Your task to perform on an android device: toggle notifications settings in the gmail app Image 0: 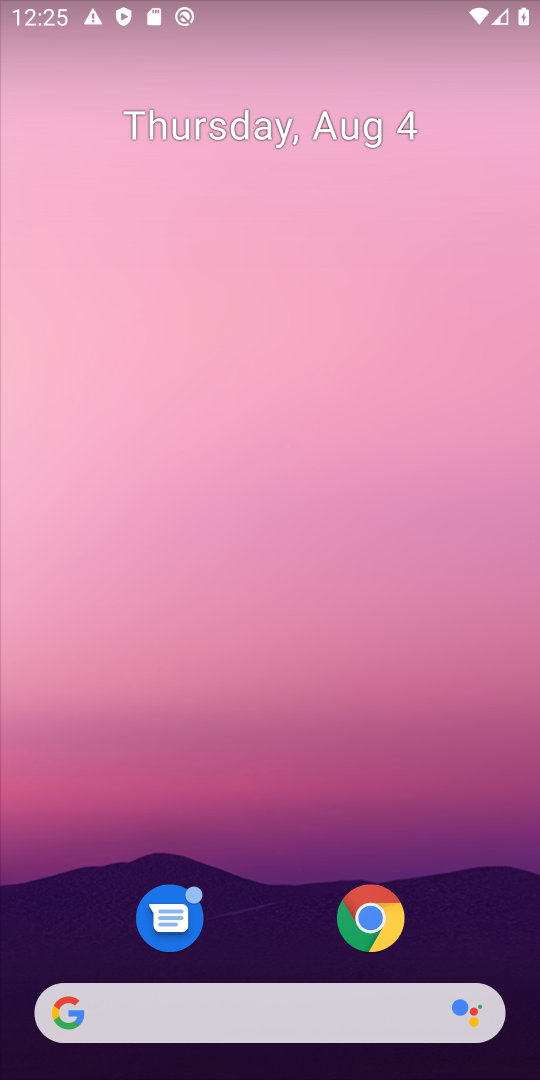
Step 0: drag from (287, 937) to (285, 363)
Your task to perform on an android device: toggle notifications settings in the gmail app Image 1: 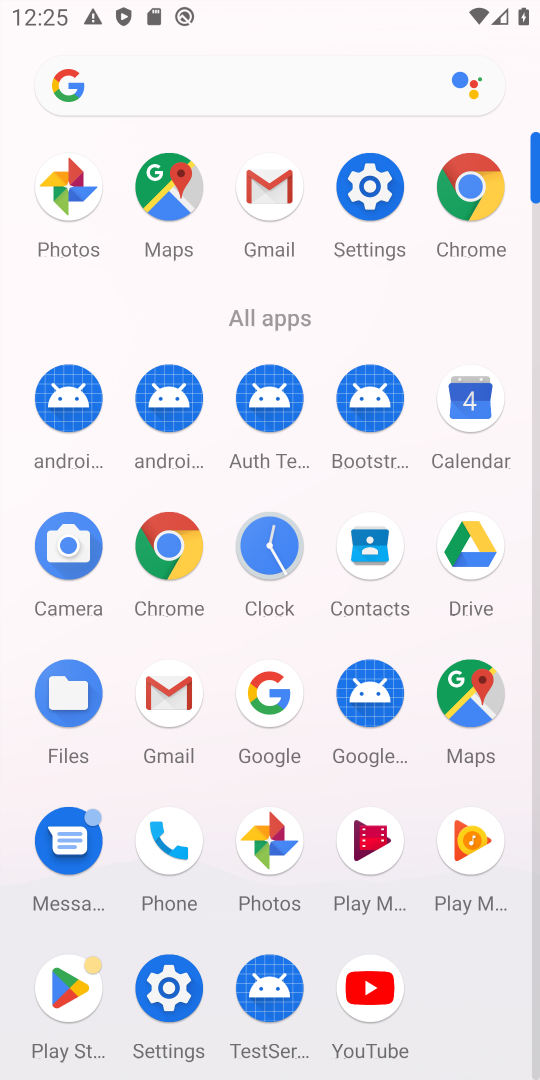
Step 1: click (269, 215)
Your task to perform on an android device: toggle notifications settings in the gmail app Image 2: 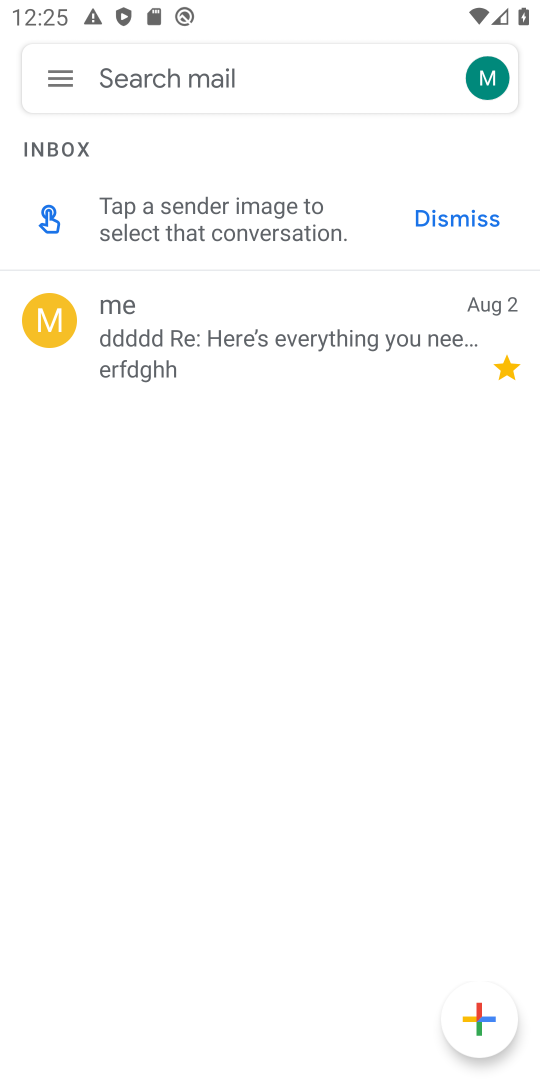
Step 2: click (64, 68)
Your task to perform on an android device: toggle notifications settings in the gmail app Image 3: 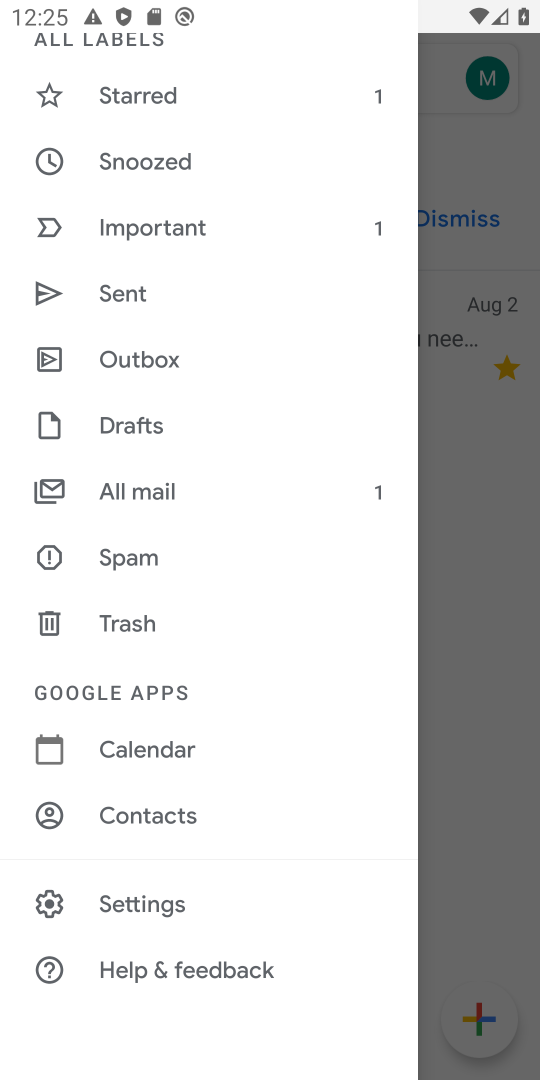
Step 3: click (133, 890)
Your task to perform on an android device: toggle notifications settings in the gmail app Image 4: 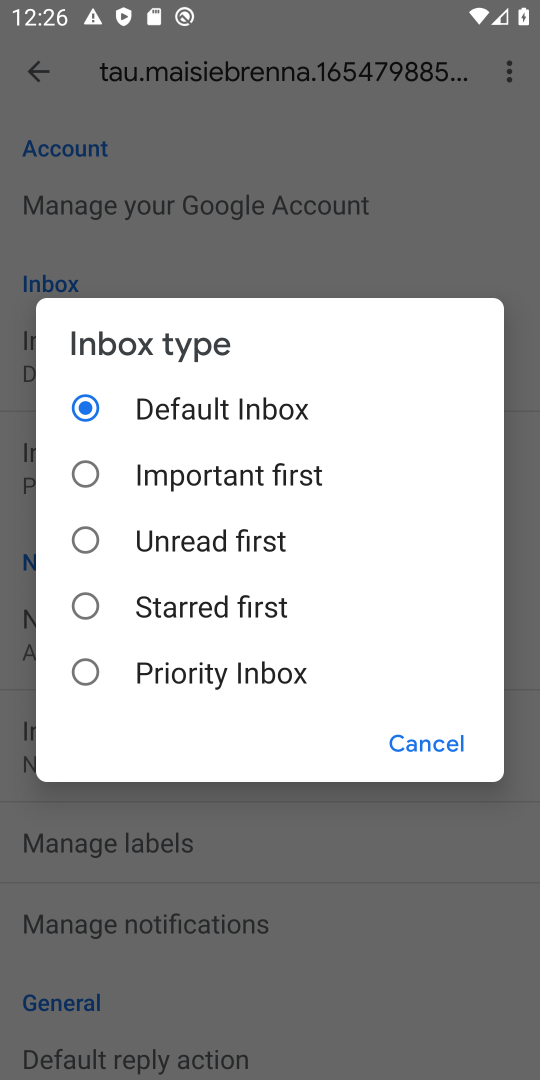
Step 4: click (395, 726)
Your task to perform on an android device: toggle notifications settings in the gmail app Image 5: 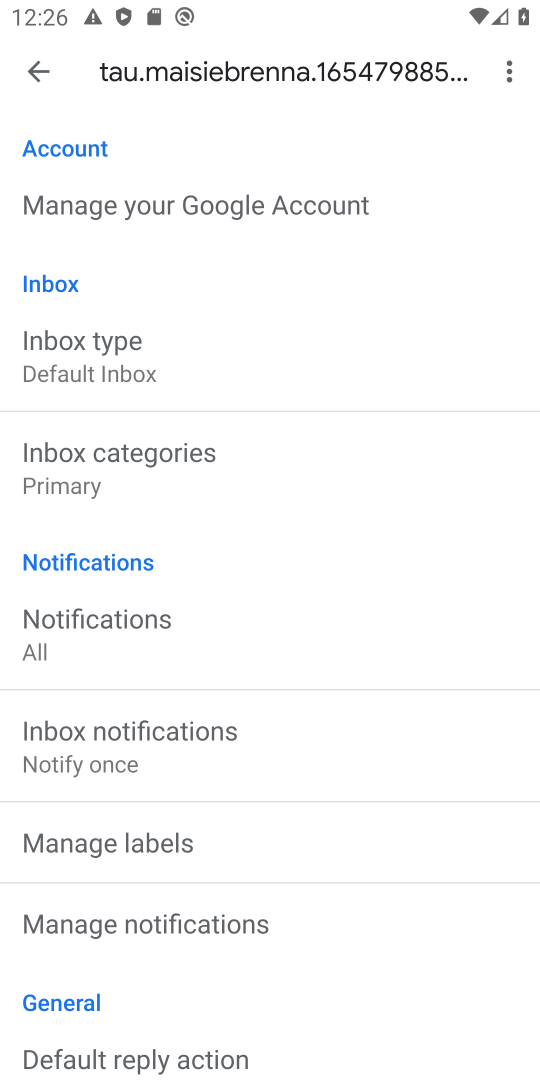
Step 5: click (197, 900)
Your task to perform on an android device: toggle notifications settings in the gmail app Image 6: 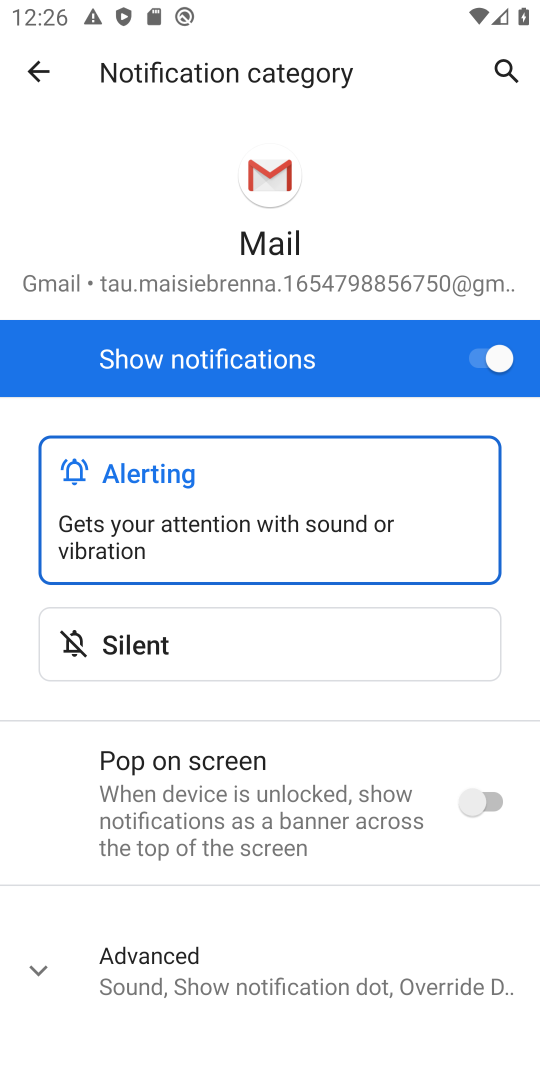
Step 6: click (489, 345)
Your task to perform on an android device: toggle notifications settings in the gmail app Image 7: 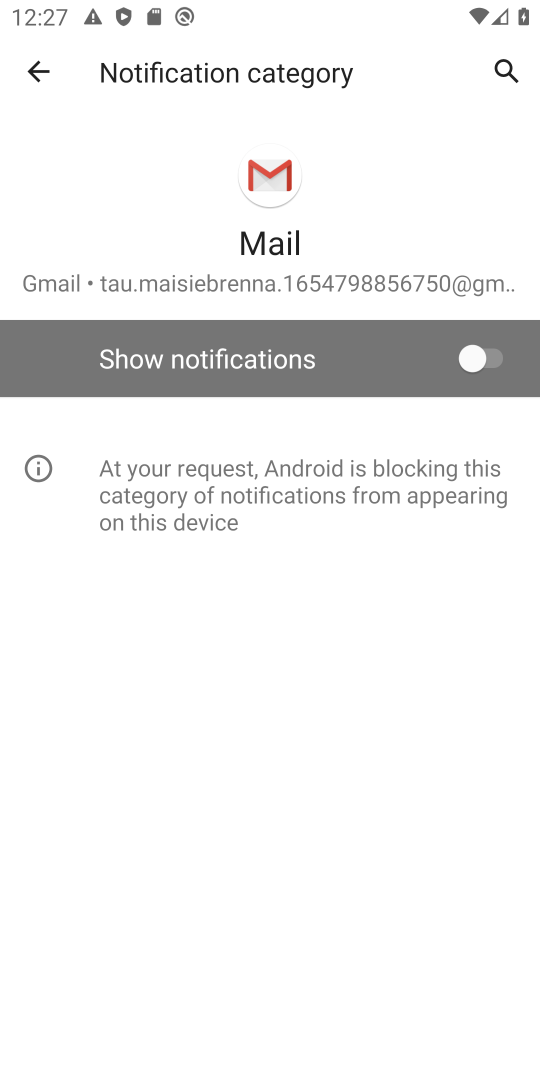
Step 7: task complete